Your task to perform on an android device: What's on my calendar today? Image 0: 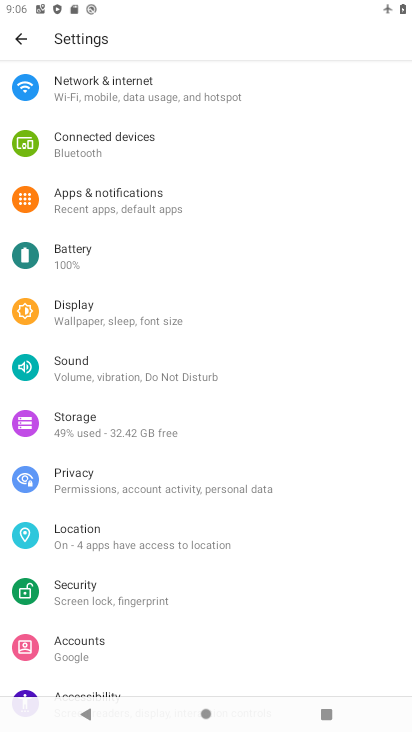
Step 0: press home button
Your task to perform on an android device: What's on my calendar today? Image 1: 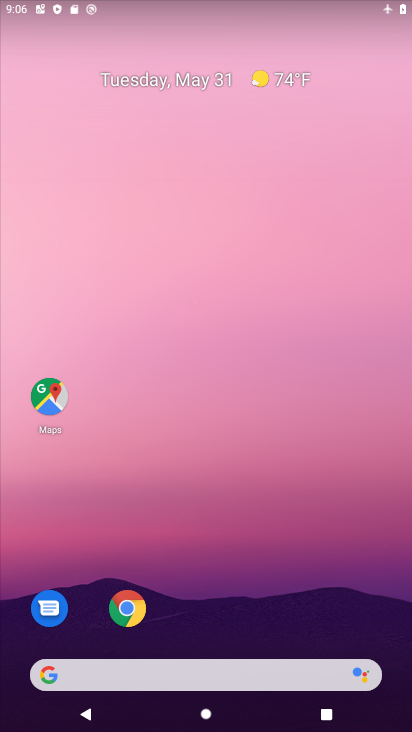
Step 1: drag from (235, 640) to (55, 24)
Your task to perform on an android device: What's on my calendar today? Image 2: 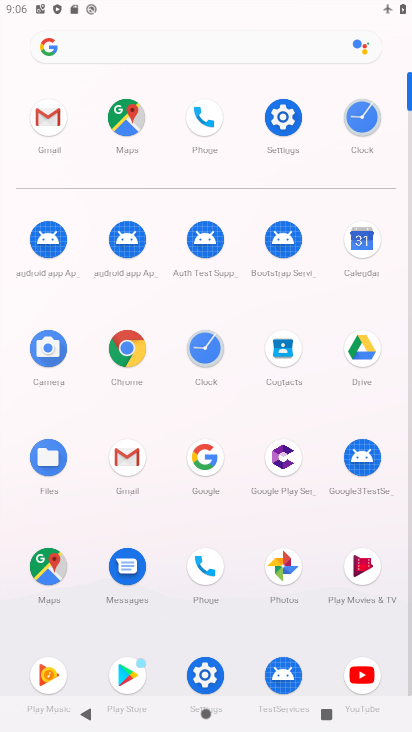
Step 2: click (362, 272)
Your task to perform on an android device: What's on my calendar today? Image 3: 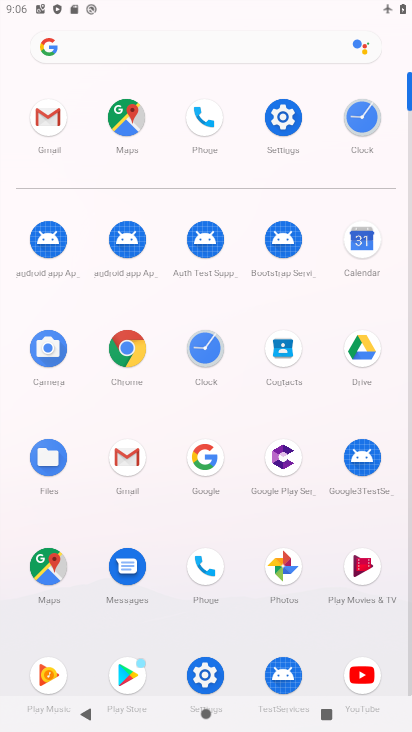
Step 3: click (362, 272)
Your task to perform on an android device: What's on my calendar today? Image 4: 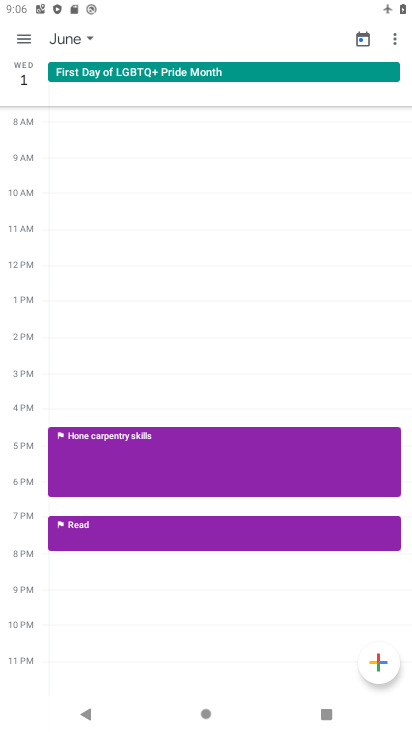
Step 4: click (353, 40)
Your task to perform on an android device: What's on my calendar today? Image 5: 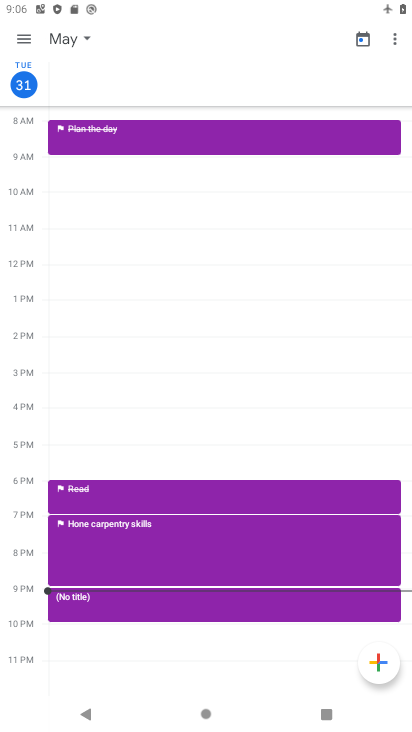
Step 5: click (18, 79)
Your task to perform on an android device: What's on my calendar today? Image 6: 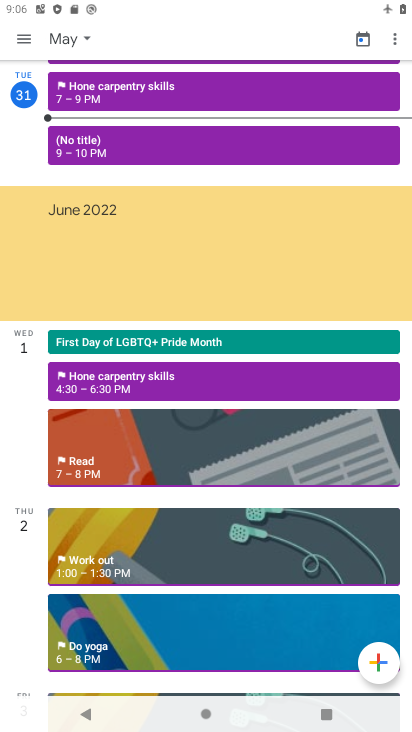
Step 6: task complete